Your task to perform on an android device: turn off picture-in-picture Image 0: 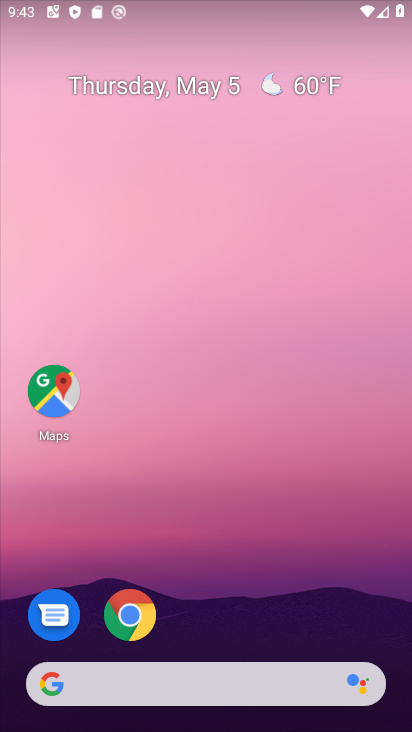
Step 0: click (125, 618)
Your task to perform on an android device: turn off picture-in-picture Image 1: 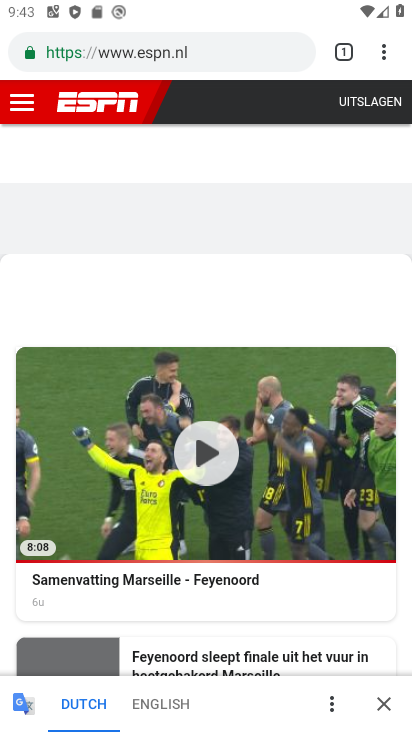
Step 1: press home button
Your task to perform on an android device: turn off picture-in-picture Image 2: 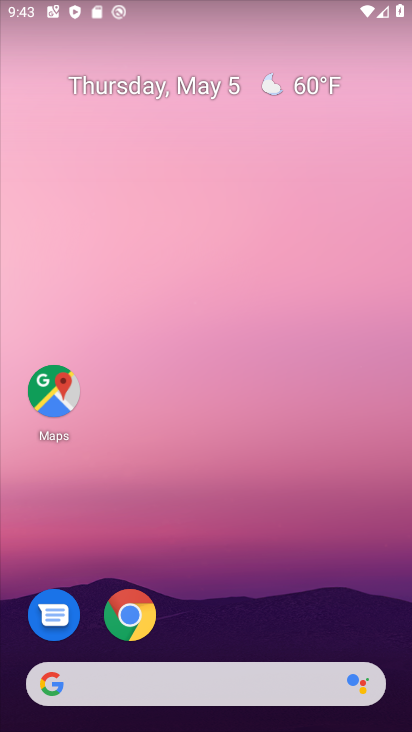
Step 2: click (135, 608)
Your task to perform on an android device: turn off picture-in-picture Image 3: 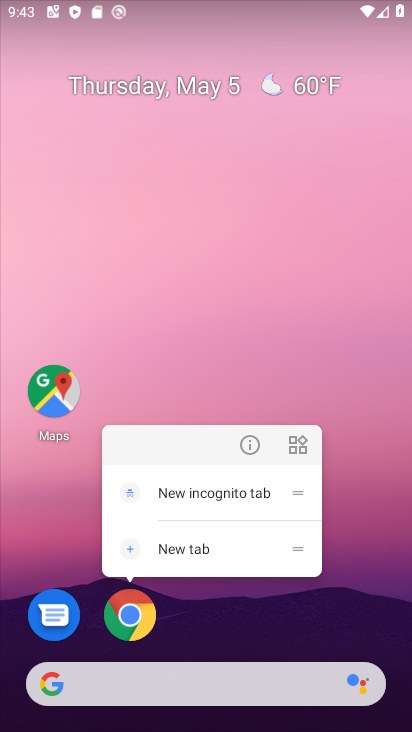
Step 3: click (248, 446)
Your task to perform on an android device: turn off picture-in-picture Image 4: 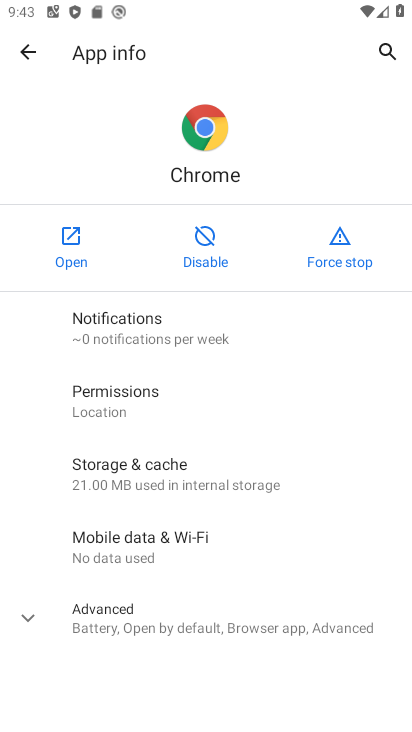
Step 4: drag from (240, 610) to (278, 262)
Your task to perform on an android device: turn off picture-in-picture Image 5: 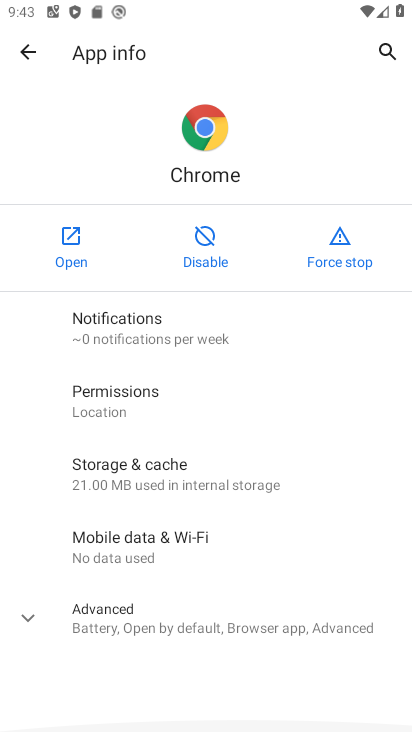
Step 5: click (136, 632)
Your task to perform on an android device: turn off picture-in-picture Image 6: 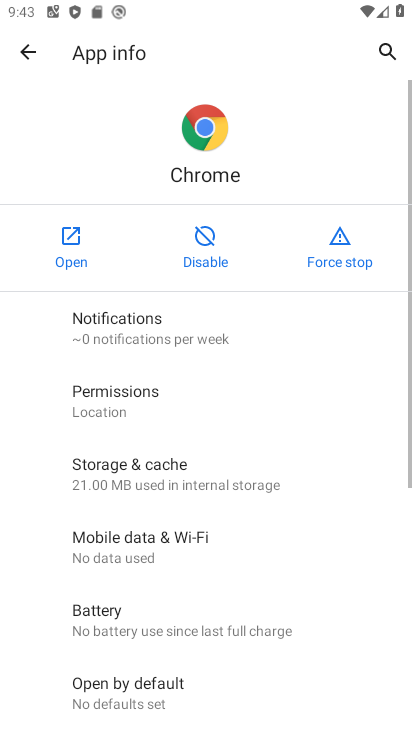
Step 6: drag from (210, 591) to (285, 86)
Your task to perform on an android device: turn off picture-in-picture Image 7: 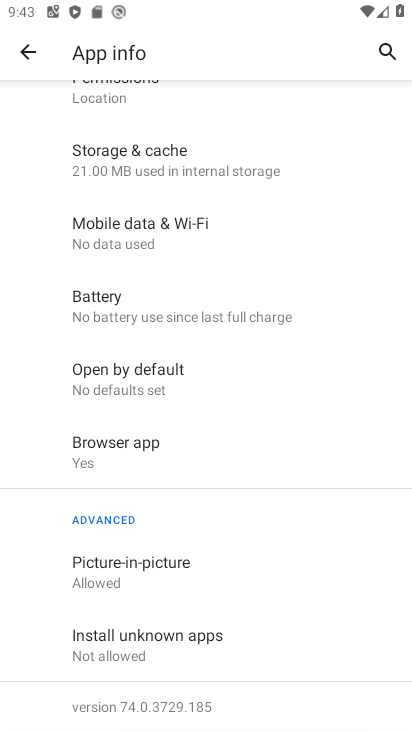
Step 7: click (148, 589)
Your task to perform on an android device: turn off picture-in-picture Image 8: 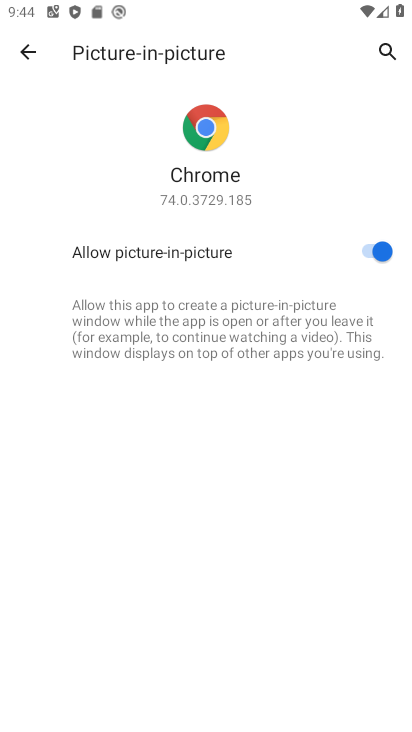
Step 8: click (373, 259)
Your task to perform on an android device: turn off picture-in-picture Image 9: 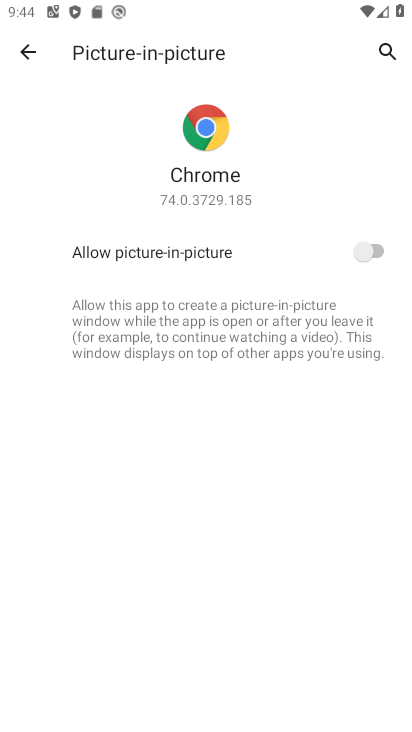
Step 9: task complete